Your task to perform on an android device: change the clock display to digital Image 0: 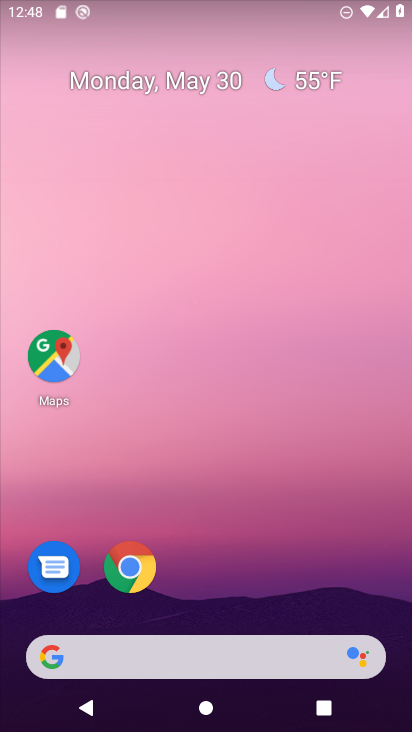
Step 0: press home button
Your task to perform on an android device: change the clock display to digital Image 1: 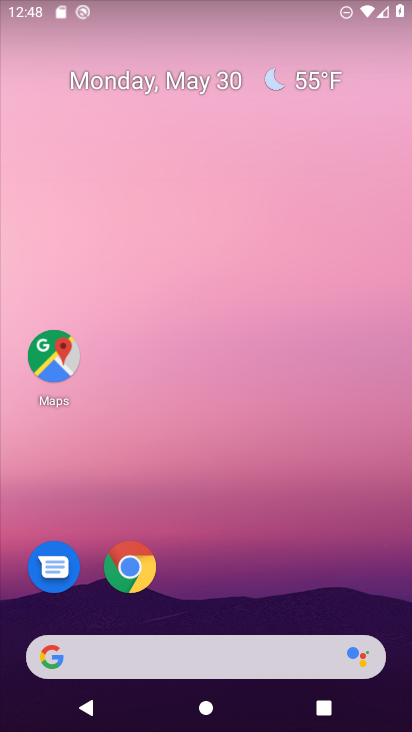
Step 1: drag from (208, 620) to (245, 32)
Your task to perform on an android device: change the clock display to digital Image 2: 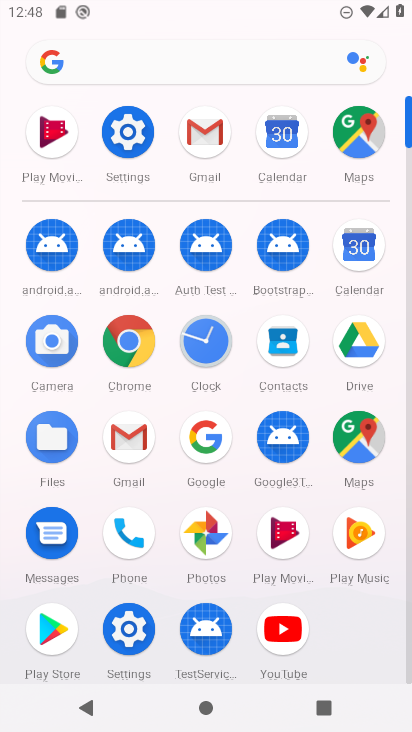
Step 2: click (200, 328)
Your task to perform on an android device: change the clock display to digital Image 3: 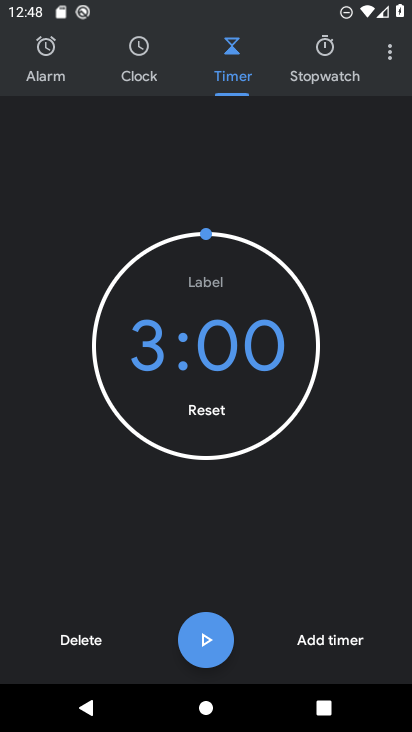
Step 3: click (395, 62)
Your task to perform on an android device: change the clock display to digital Image 4: 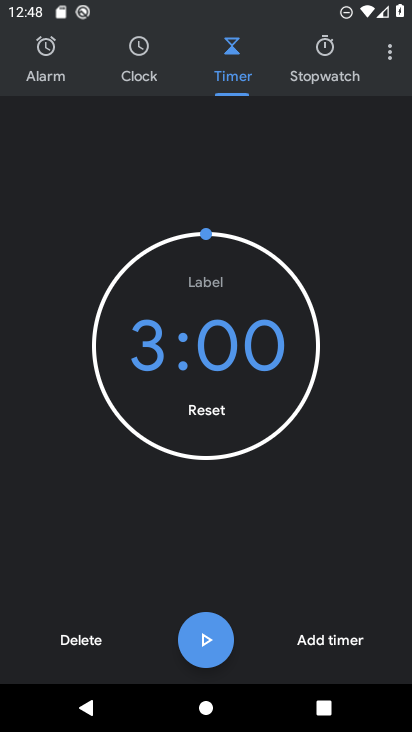
Step 4: click (383, 54)
Your task to perform on an android device: change the clock display to digital Image 5: 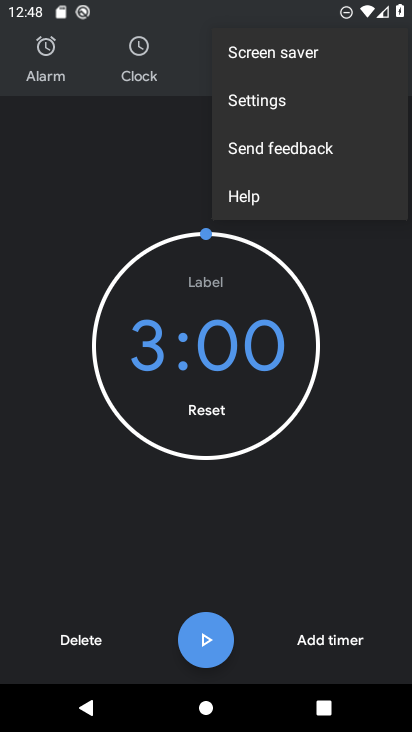
Step 5: click (291, 100)
Your task to perform on an android device: change the clock display to digital Image 6: 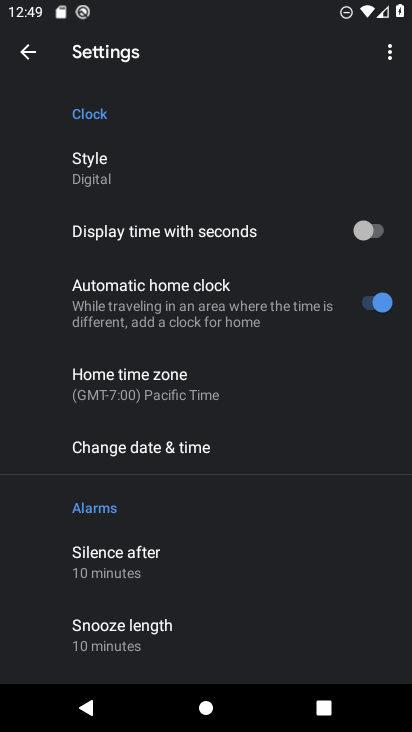
Step 6: click (125, 162)
Your task to perform on an android device: change the clock display to digital Image 7: 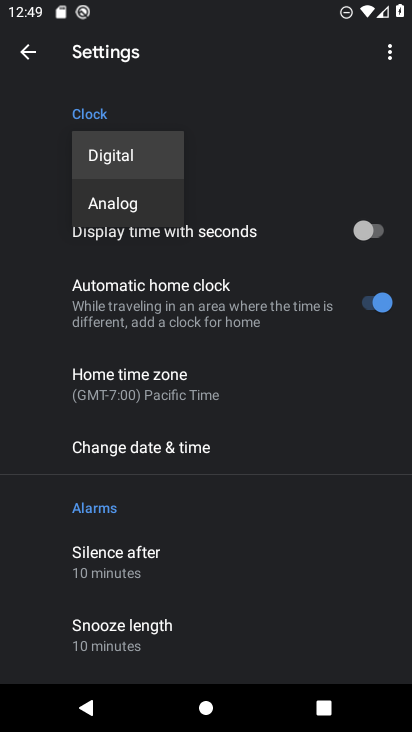
Step 7: click (133, 154)
Your task to perform on an android device: change the clock display to digital Image 8: 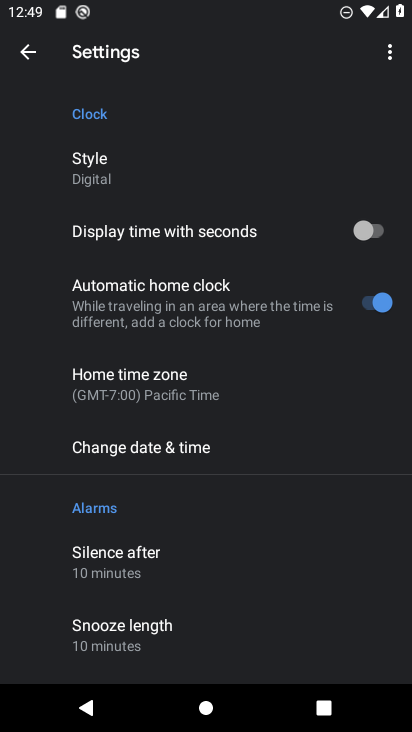
Step 8: task complete